Your task to perform on an android device: Open Youtube and go to the subscriptions tab Image 0: 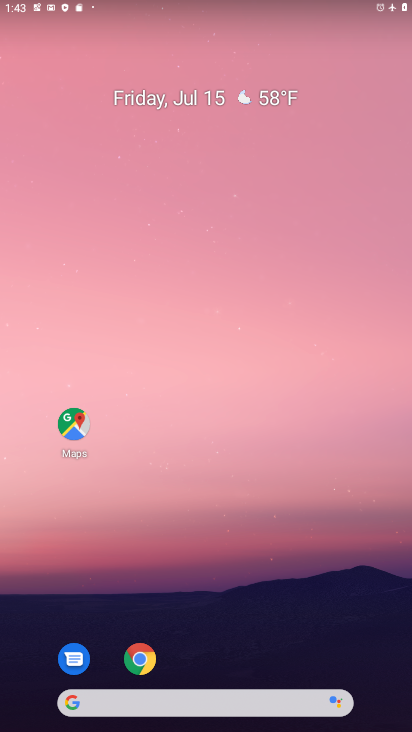
Step 0: drag from (228, 720) to (212, 266)
Your task to perform on an android device: Open Youtube and go to the subscriptions tab Image 1: 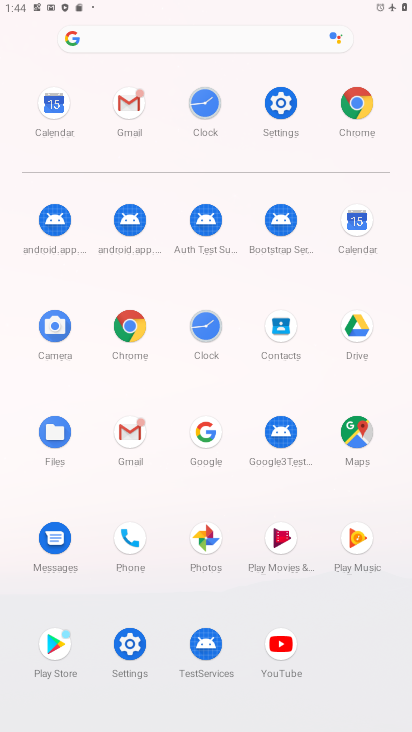
Step 1: click (282, 639)
Your task to perform on an android device: Open Youtube and go to the subscriptions tab Image 2: 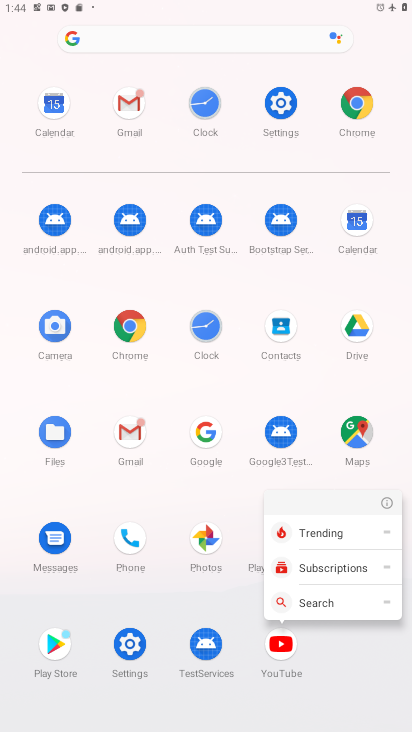
Step 2: click (285, 643)
Your task to perform on an android device: Open Youtube and go to the subscriptions tab Image 3: 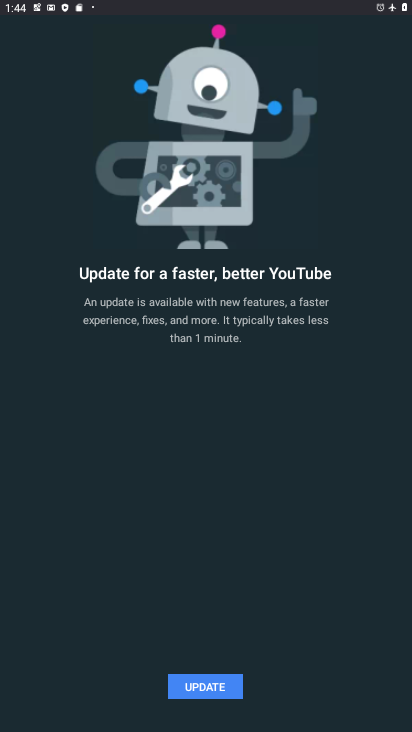
Step 3: task complete